Your task to perform on an android device: toggle translation in the chrome app Image 0: 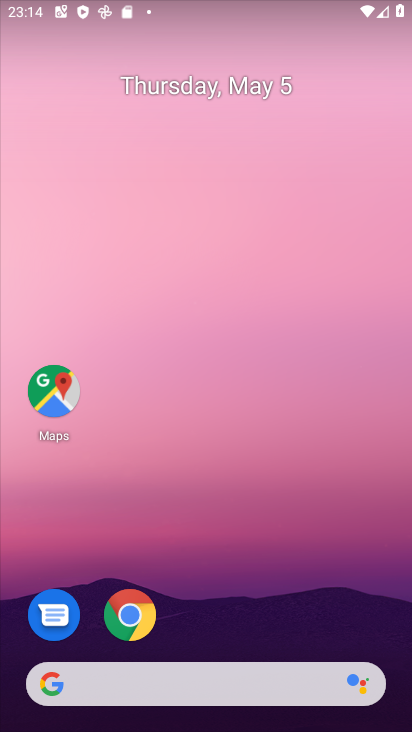
Step 0: click (129, 610)
Your task to perform on an android device: toggle translation in the chrome app Image 1: 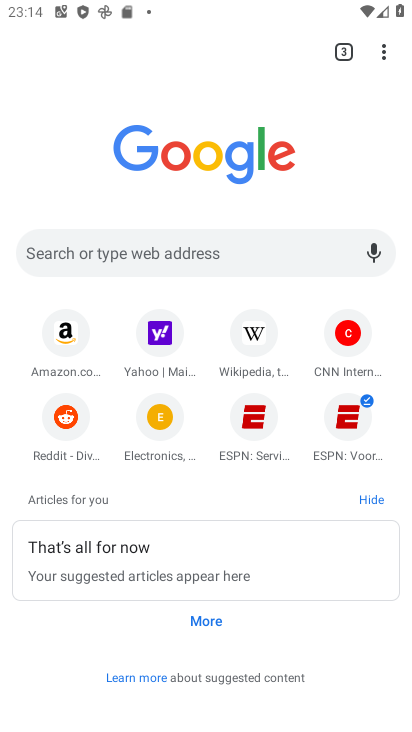
Step 1: click (380, 52)
Your task to perform on an android device: toggle translation in the chrome app Image 2: 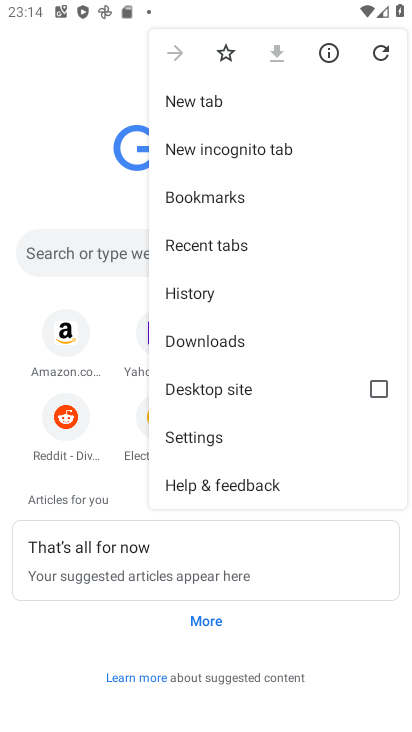
Step 2: click (223, 436)
Your task to perform on an android device: toggle translation in the chrome app Image 3: 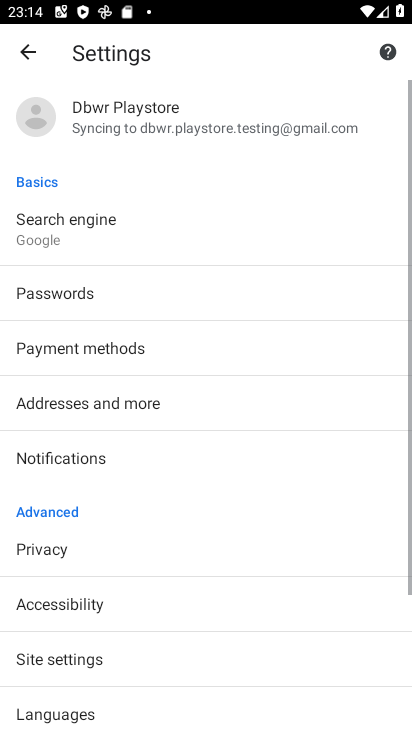
Step 3: drag from (226, 572) to (239, 321)
Your task to perform on an android device: toggle translation in the chrome app Image 4: 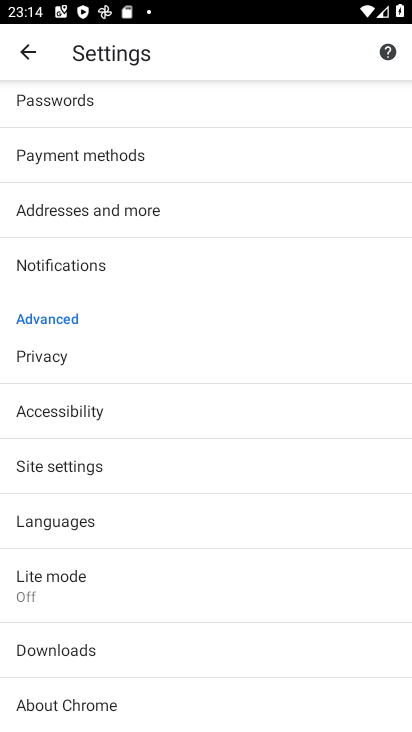
Step 4: click (123, 523)
Your task to perform on an android device: toggle translation in the chrome app Image 5: 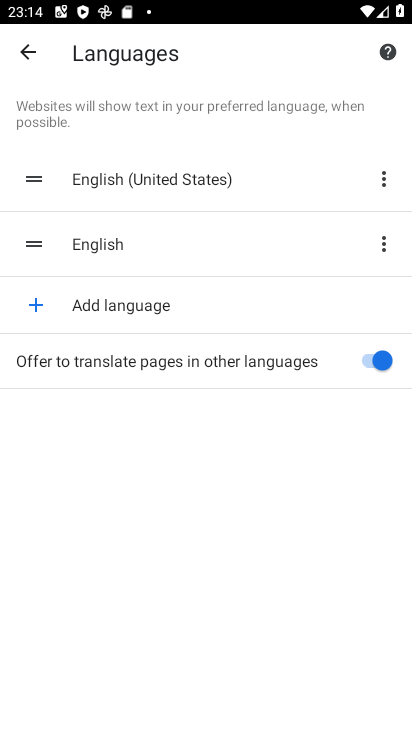
Step 5: click (378, 364)
Your task to perform on an android device: toggle translation in the chrome app Image 6: 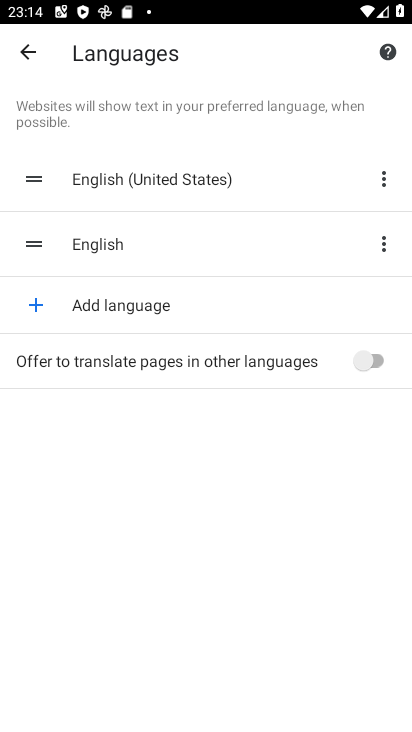
Step 6: task complete